Your task to perform on an android device: What's the weather? Image 0: 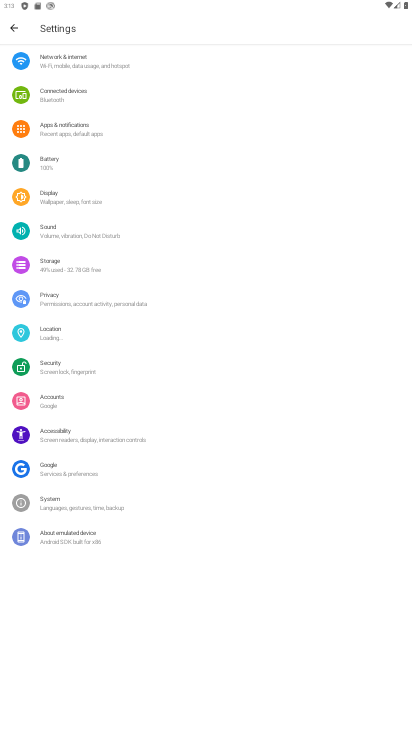
Step 0: press home button
Your task to perform on an android device: What's the weather? Image 1: 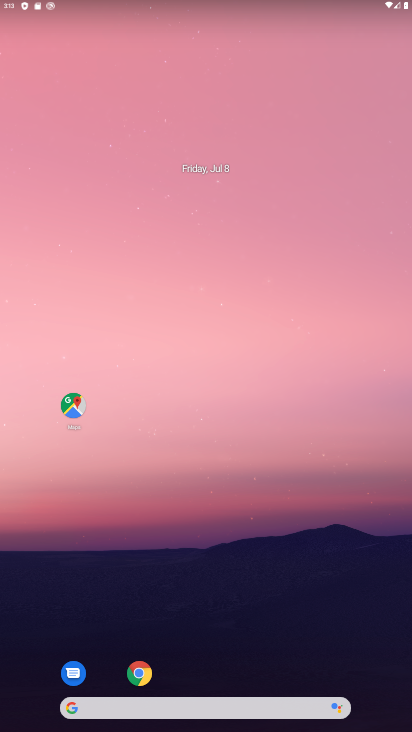
Step 1: click (150, 705)
Your task to perform on an android device: What's the weather? Image 2: 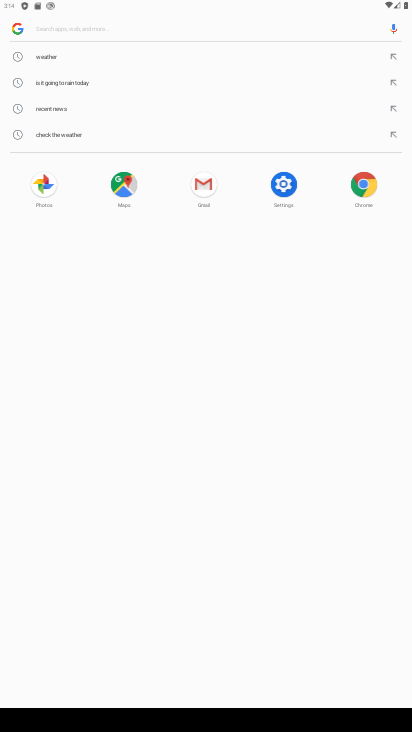
Step 2: click (39, 53)
Your task to perform on an android device: What's the weather? Image 3: 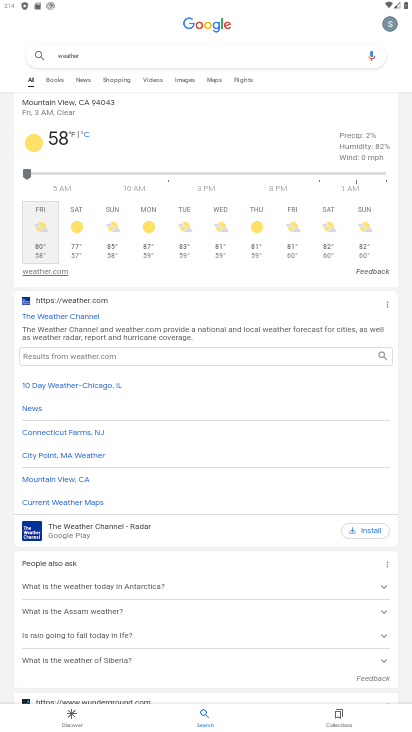
Step 3: task complete